Your task to perform on an android device: turn off notifications in google photos Image 0: 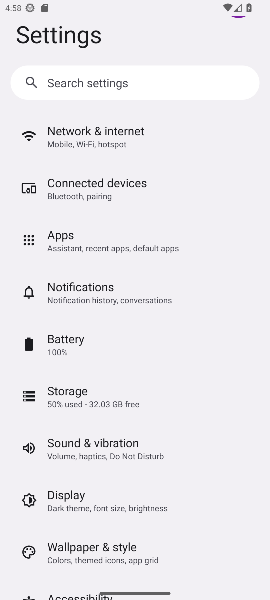
Step 0: press home button
Your task to perform on an android device: turn off notifications in google photos Image 1: 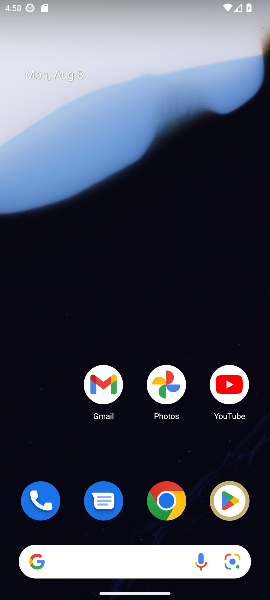
Step 1: click (160, 394)
Your task to perform on an android device: turn off notifications in google photos Image 2: 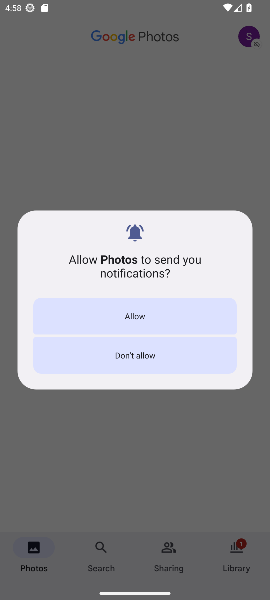
Step 2: click (136, 318)
Your task to perform on an android device: turn off notifications in google photos Image 3: 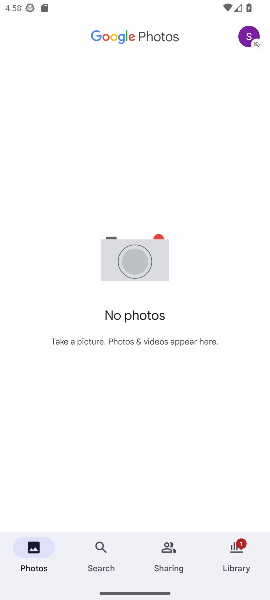
Step 3: click (249, 38)
Your task to perform on an android device: turn off notifications in google photos Image 4: 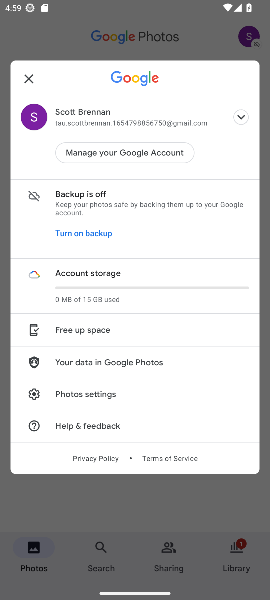
Step 4: click (90, 385)
Your task to perform on an android device: turn off notifications in google photos Image 5: 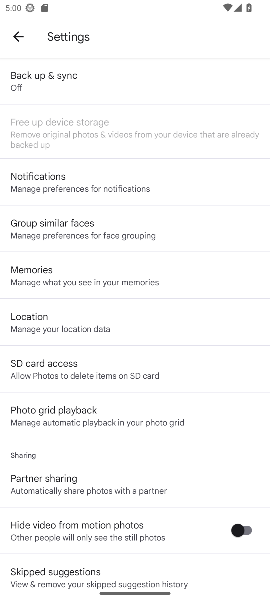
Step 5: click (72, 173)
Your task to perform on an android device: turn off notifications in google photos Image 6: 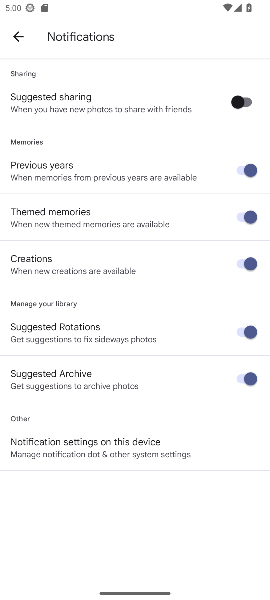
Step 6: click (127, 436)
Your task to perform on an android device: turn off notifications in google photos Image 7: 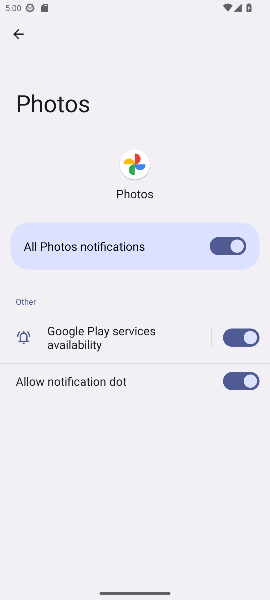
Step 7: click (236, 250)
Your task to perform on an android device: turn off notifications in google photos Image 8: 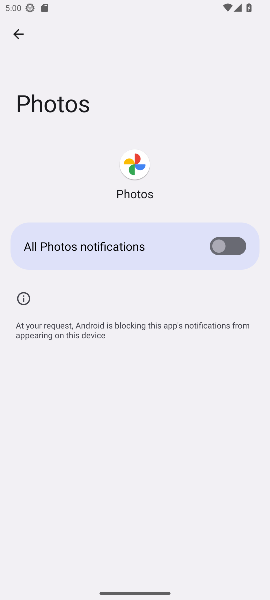
Step 8: task complete